Your task to perform on an android device: add a contact in the contacts app Image 0: 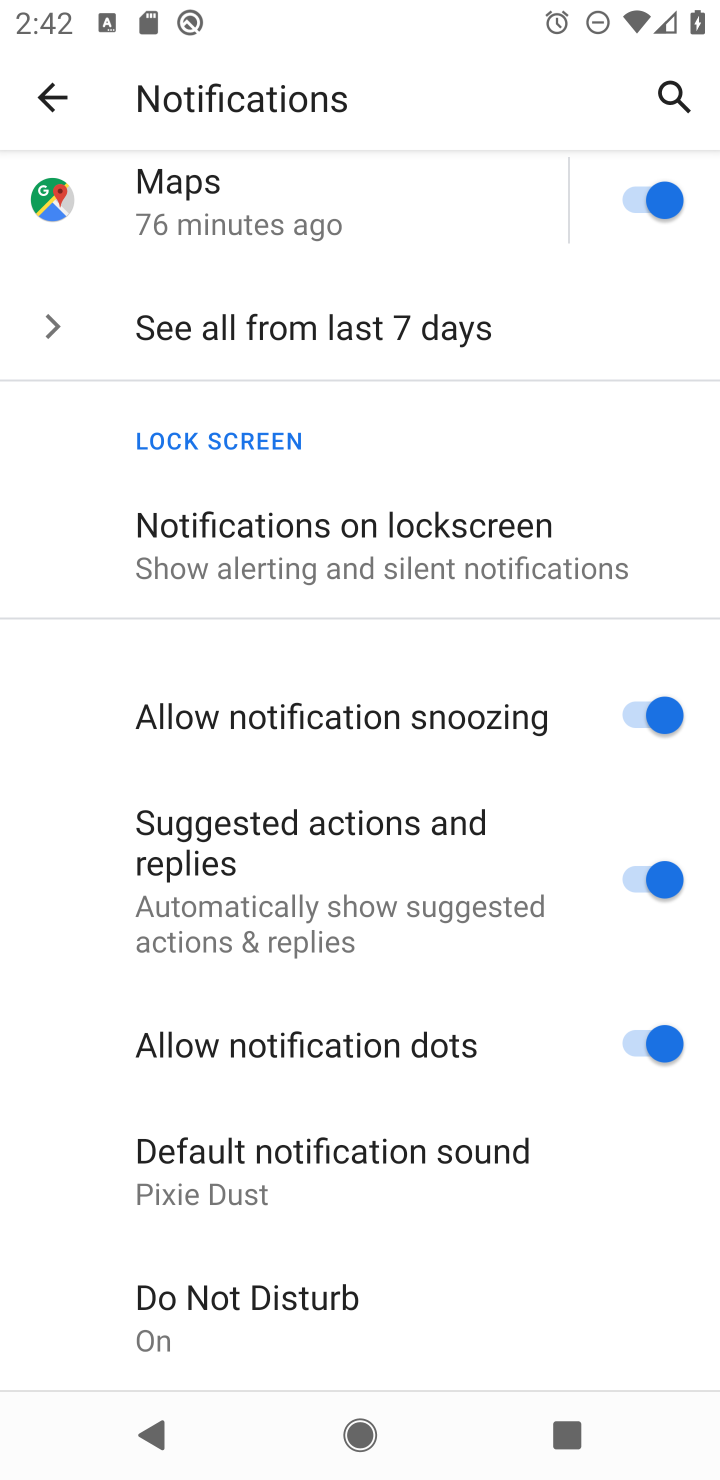
Step 0: press home button
Your task to perform on an android device: add a contact in the contacts app Image 1: 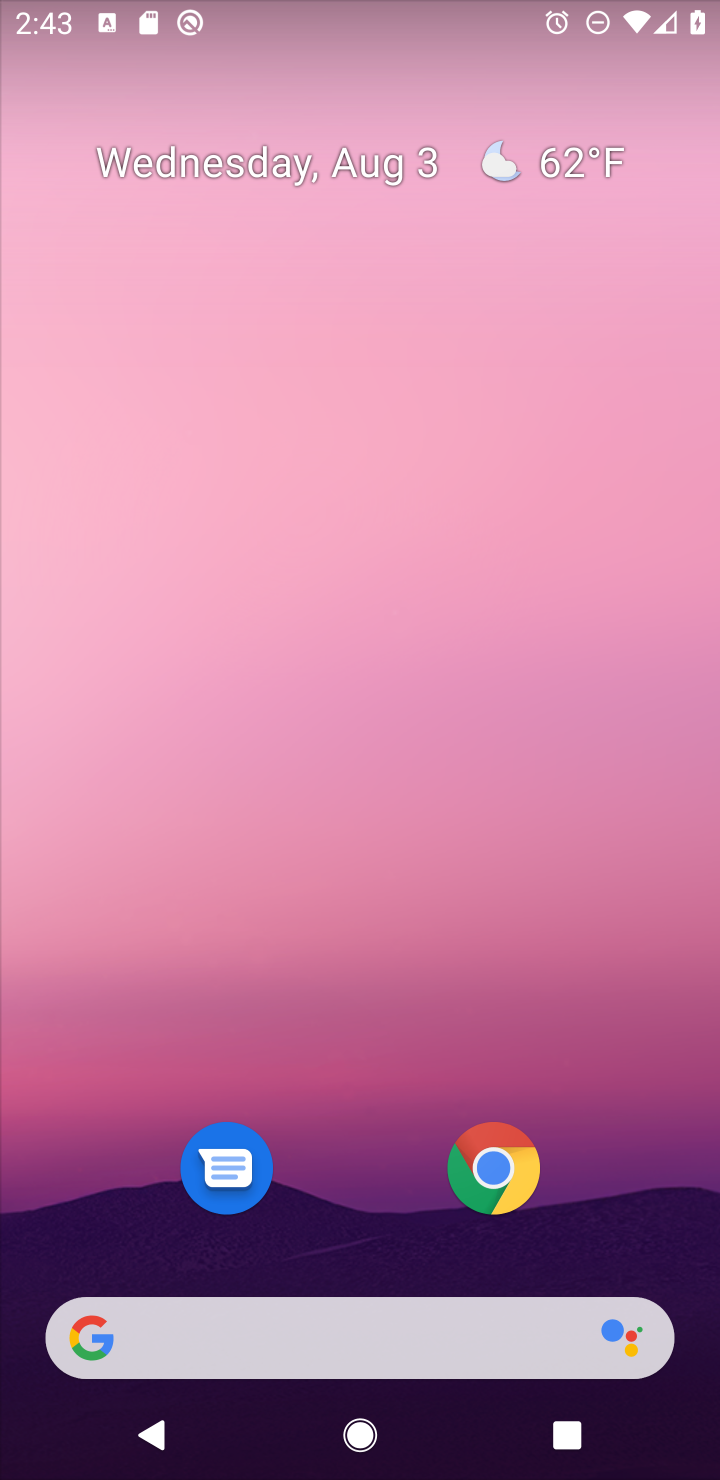
Step 1: drag from (659, 1069) to (634, 240)
Your task to perform on an android device: add a contact in the contacts app Image 2: 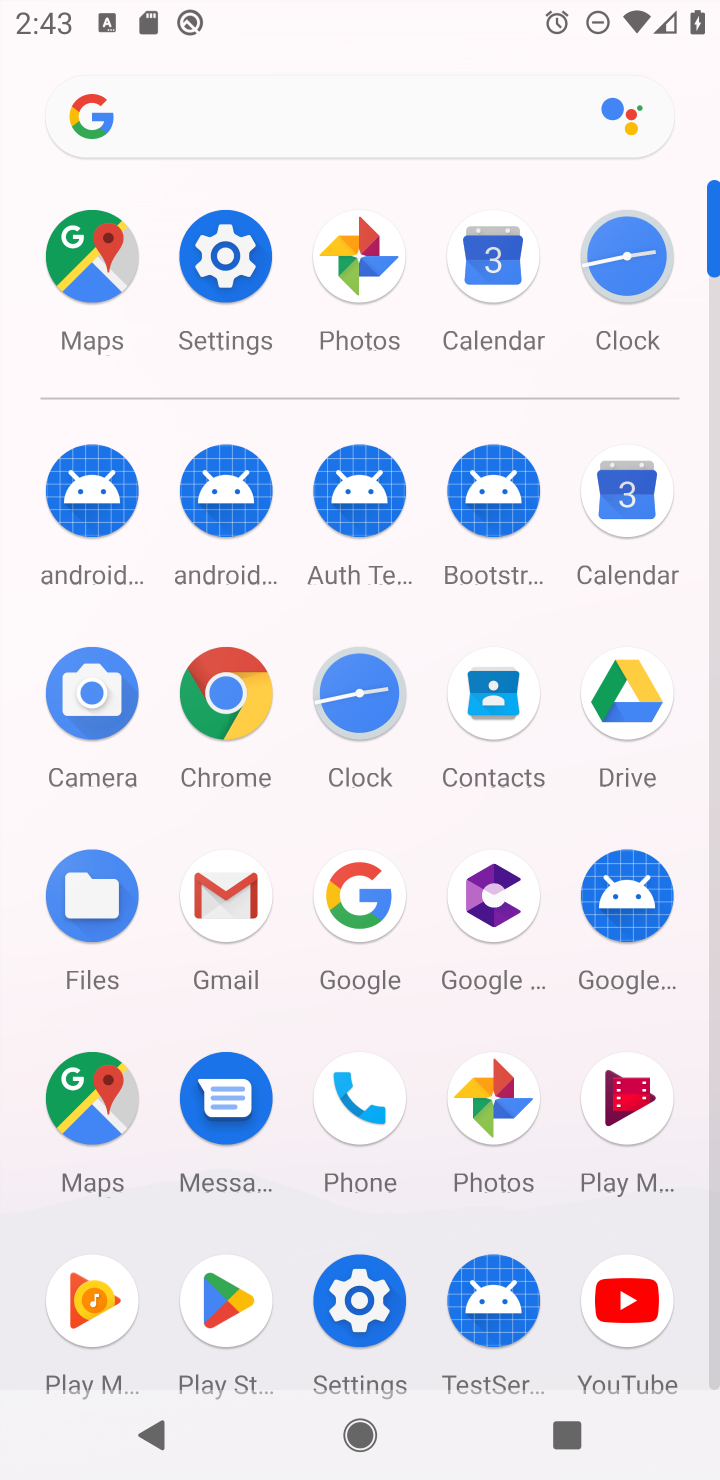
Step 2: click (489, 699)
Your task to perform on an android device: add a contact in the contacts app Image 3: 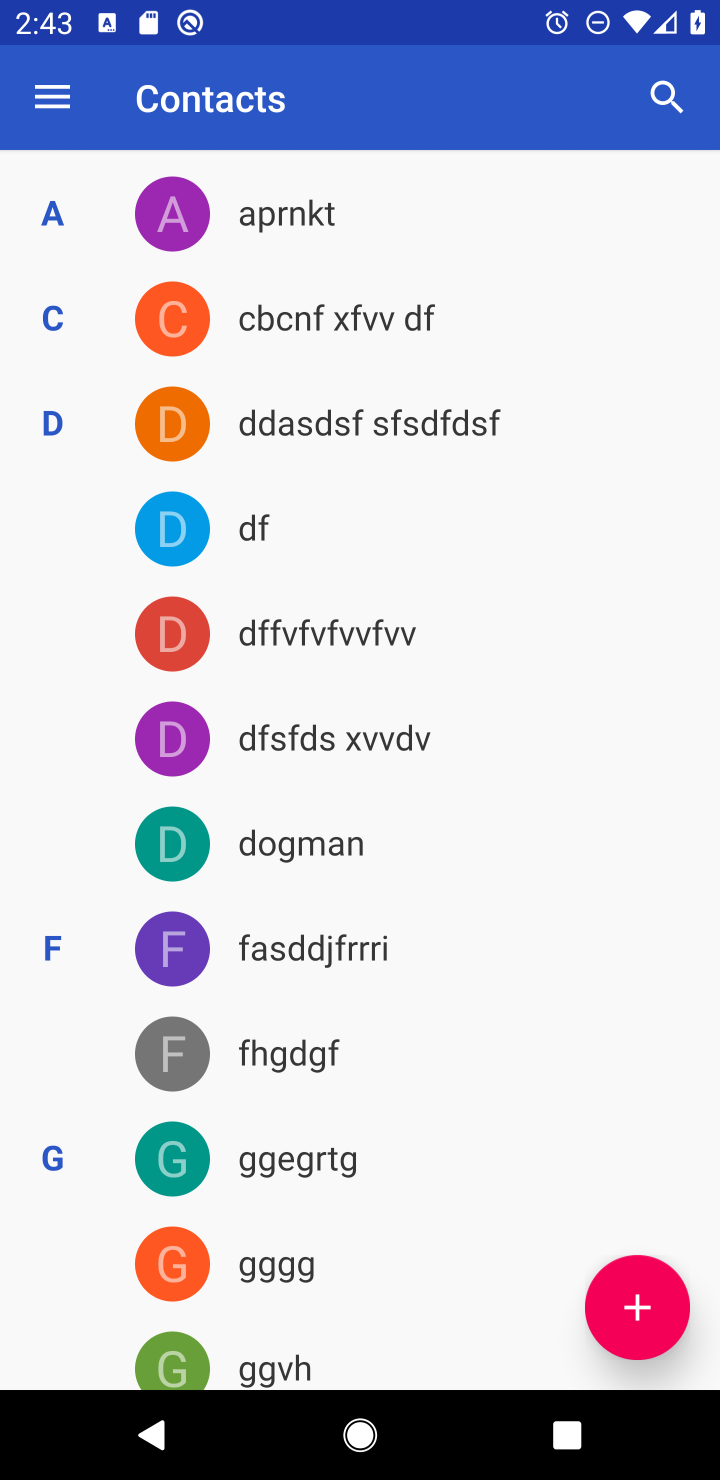
Step 3: click (633, 1308)
Your task to perform on an android device: add a contact in the contacts app Image 4: 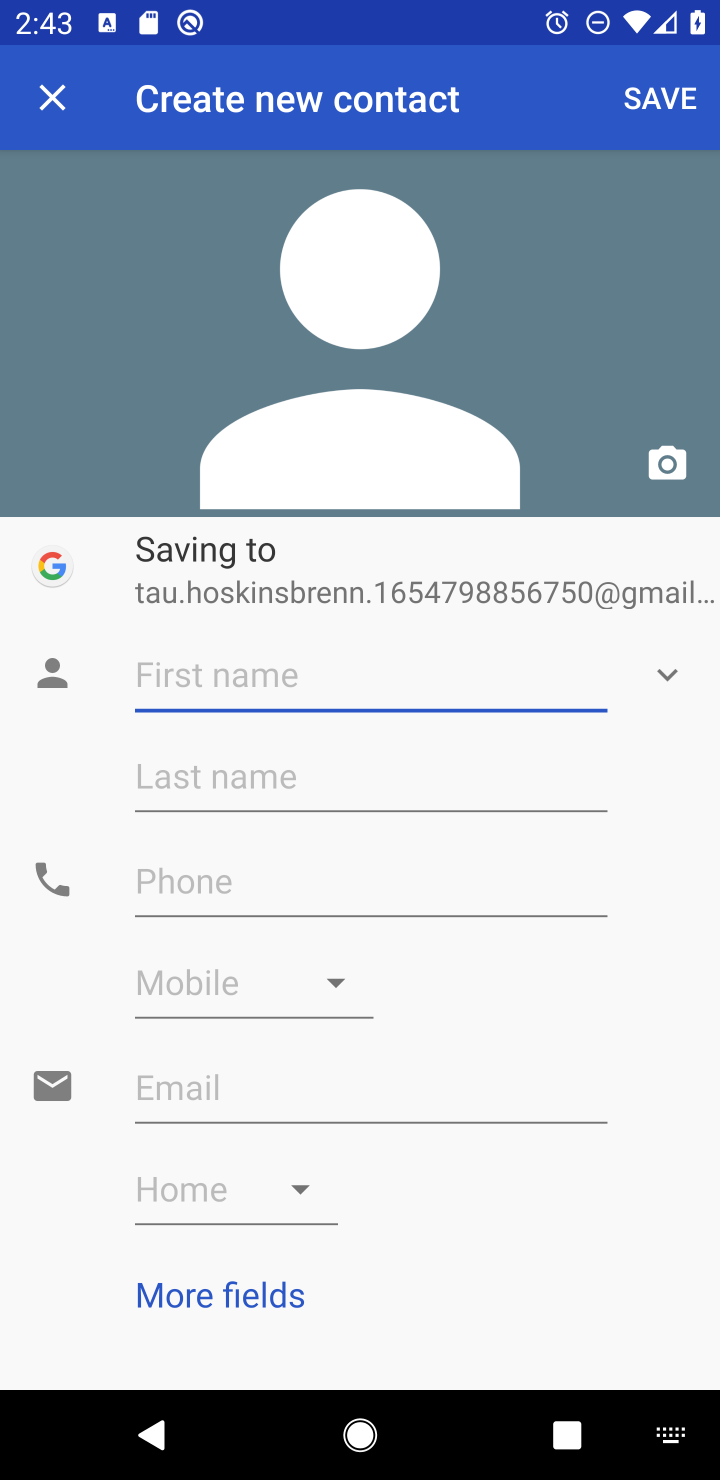
Step 4: type "mjghryuyio"
Your task to perform on an android device: add a contact in the contacts app Image 5: 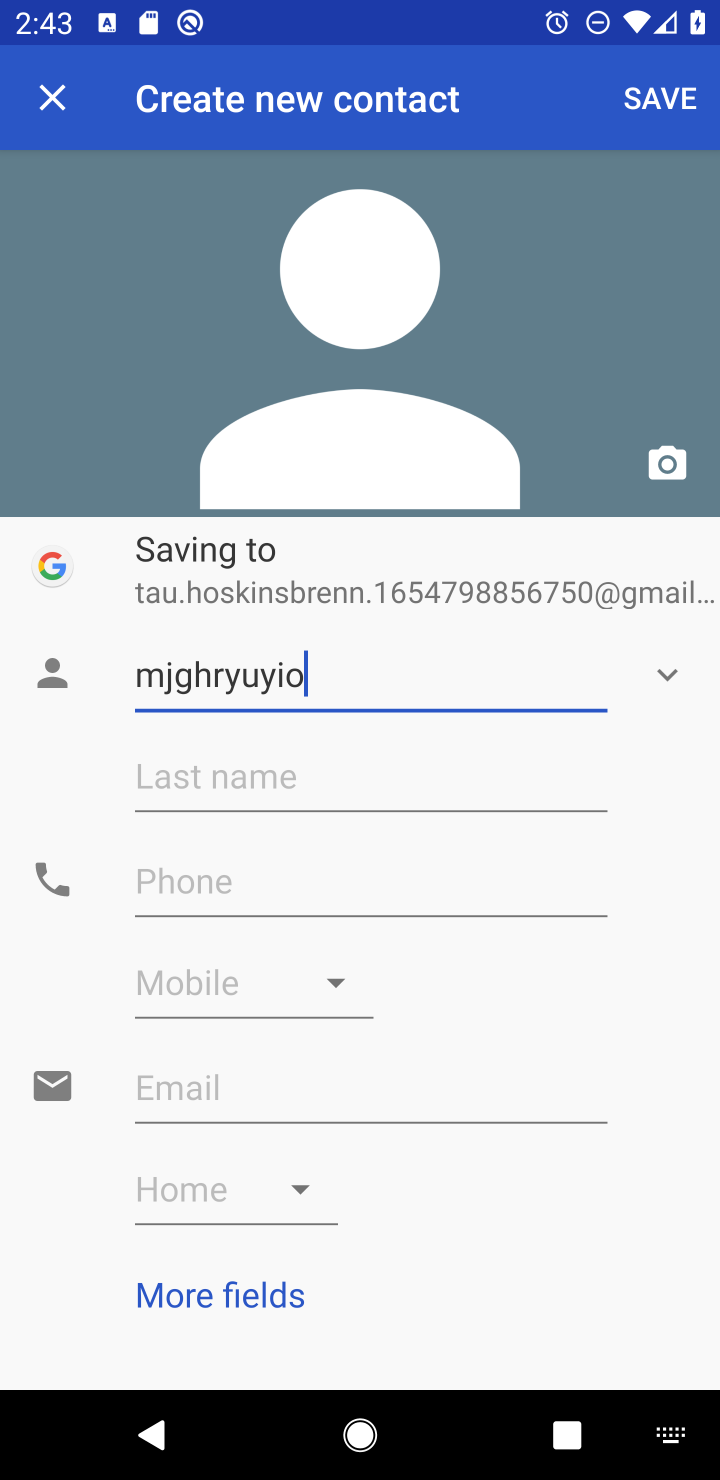
Step 5: click (299, 901)
Your task to perform on an android device: add a contact in the contacts app Image 6: 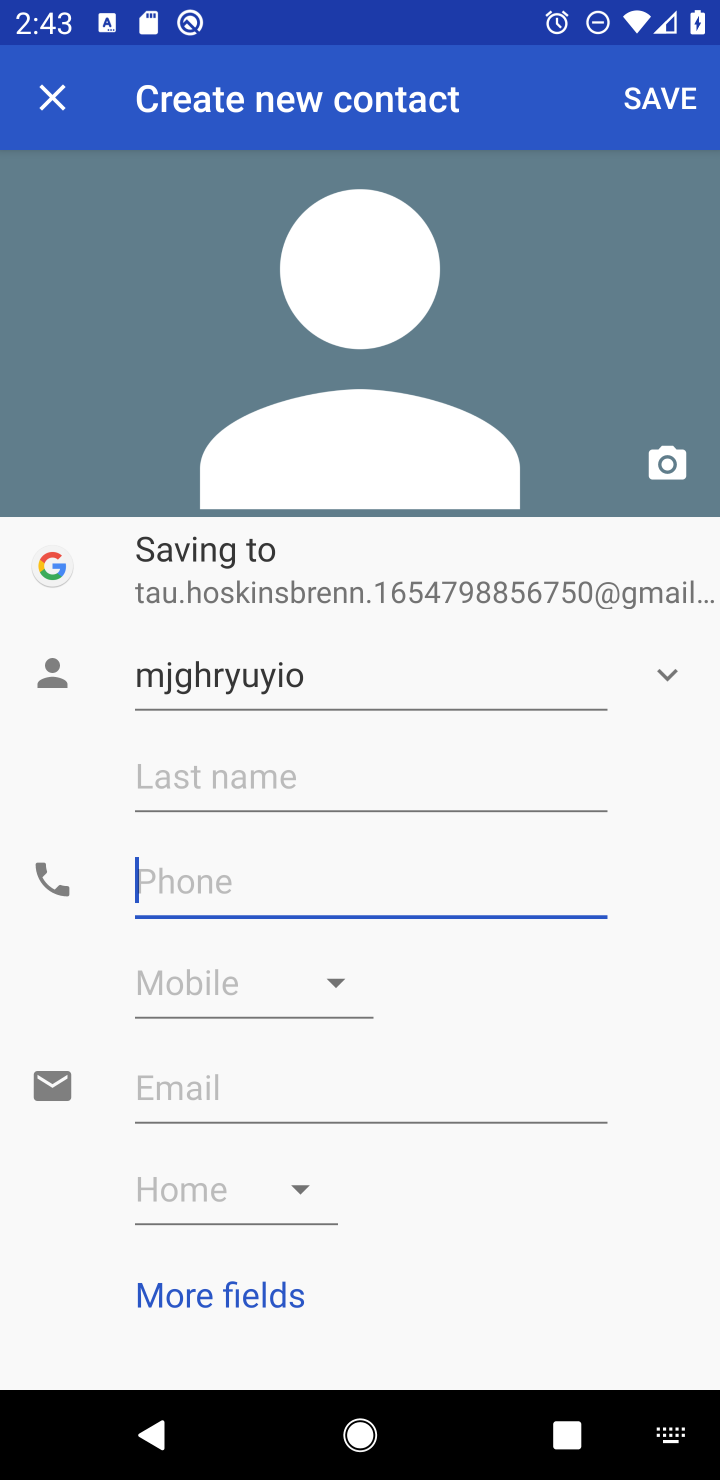
Step 6: type "0978543556"
Your task to perform on an android device: add a contact in the contacts app Image 7: 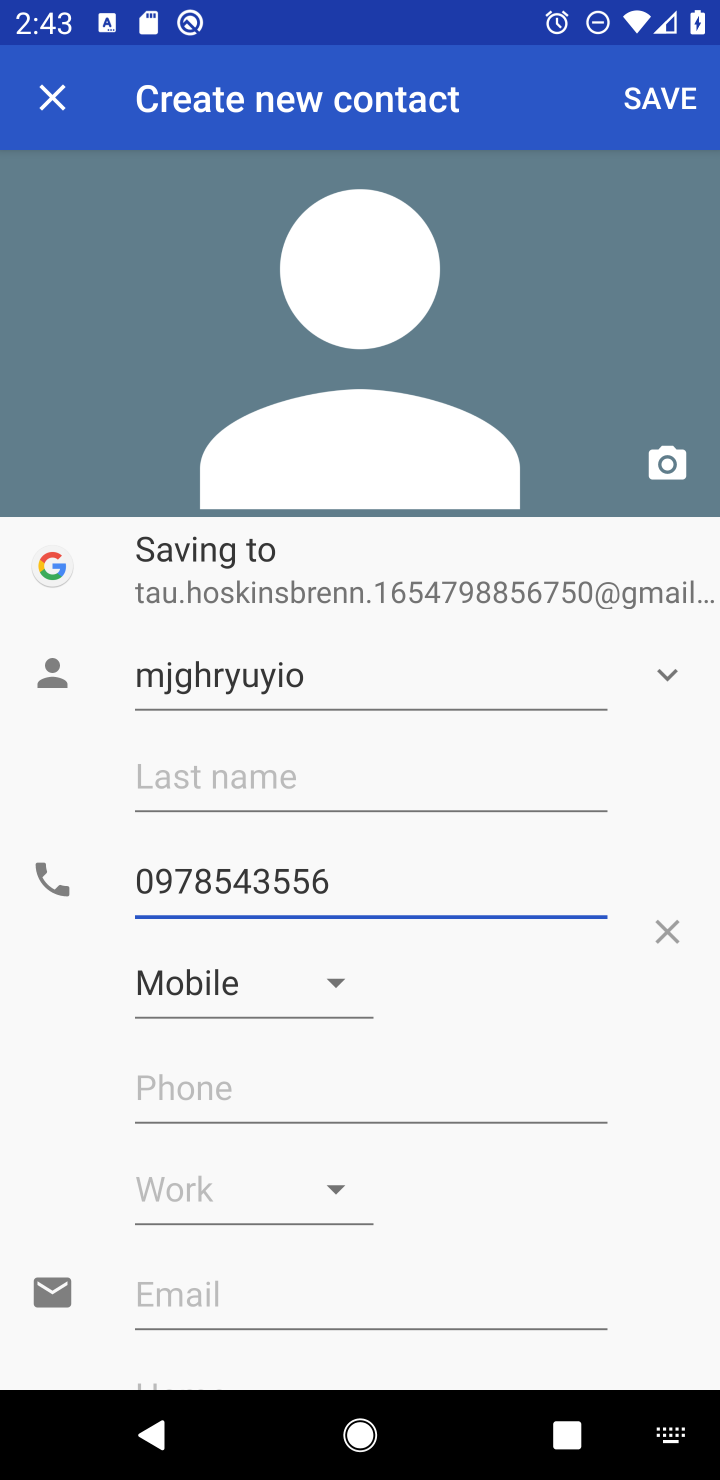
Step 7: click (656, 103)
Your task to perform on an android device: add a contact in the contacts app Image 8: 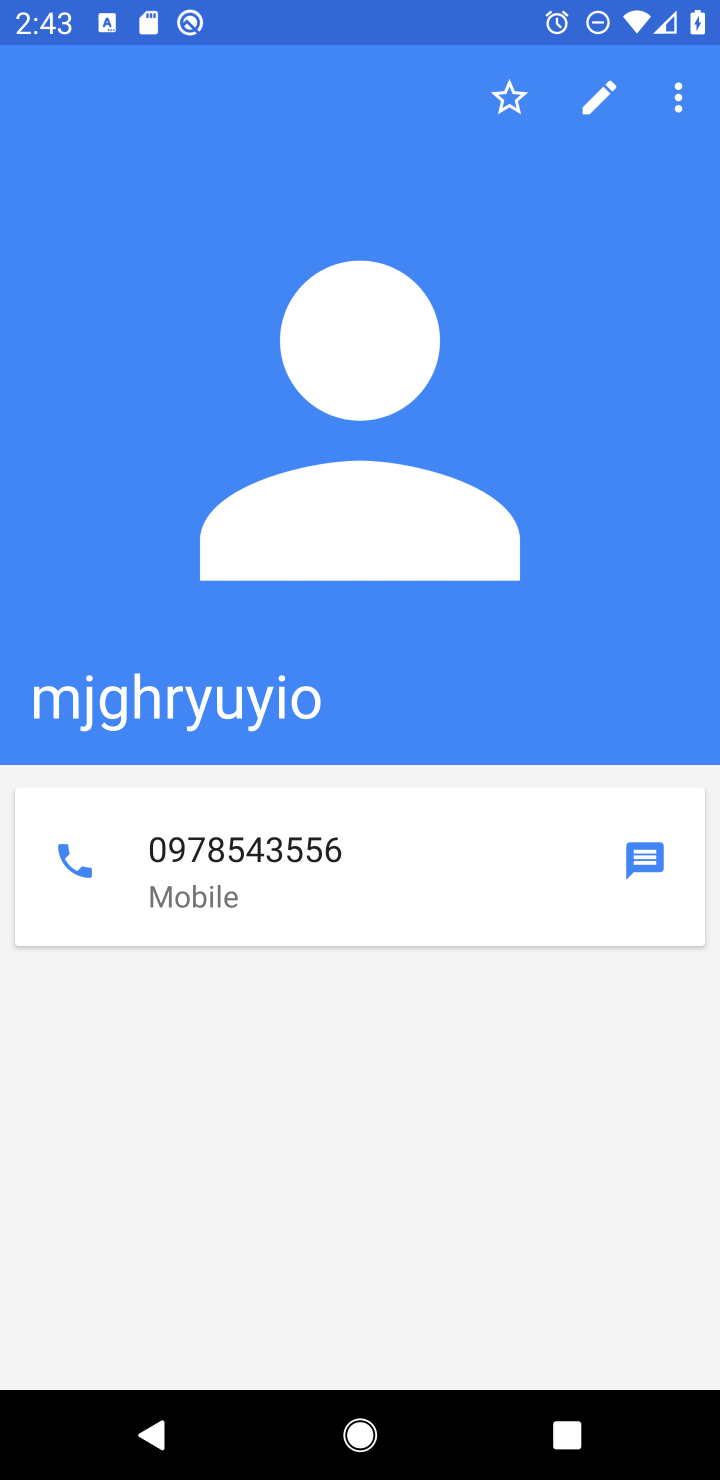
Step 8: task complete